Your task to perform on an android device: Do I have any events this weekend? Image 0: 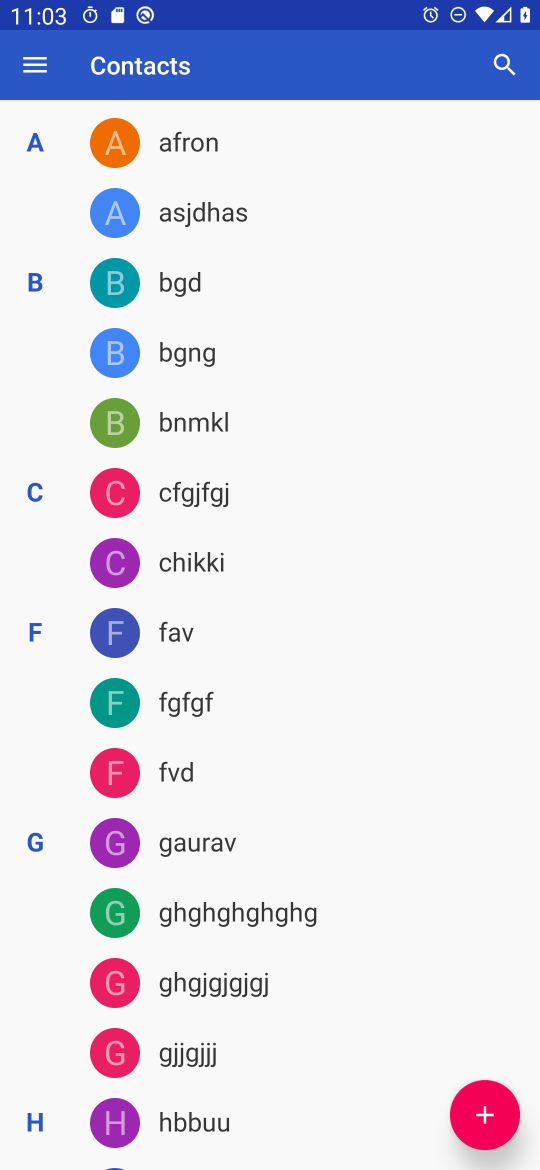
Step 0: press back button
Your task to perform on an android device: Do I have any events this weekend? Image 1: 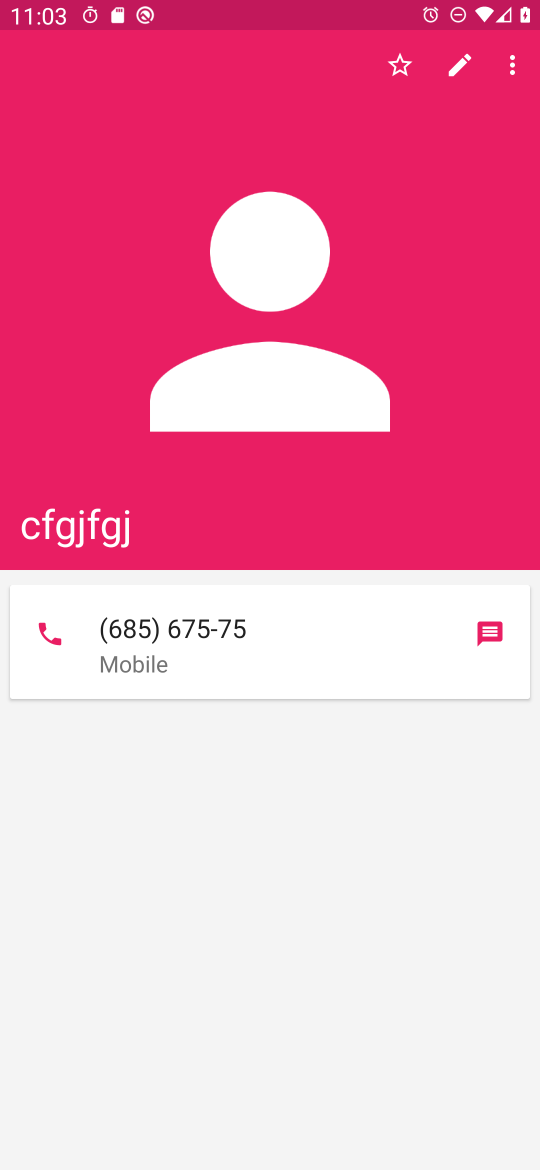
Step 1: press home button
Your task to perform on an android device: Do I have any events this weekend? Image 2: 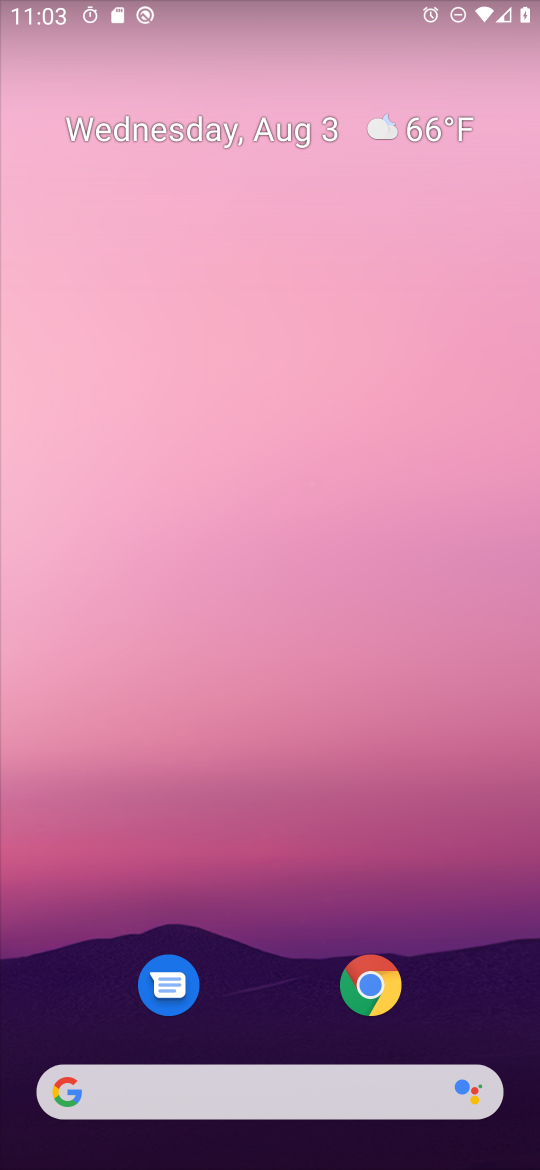
Step 2: drag from (289, 958) to (208, 234)
Your task to perform on an android device: Do I have any events this weekend? Image 3: 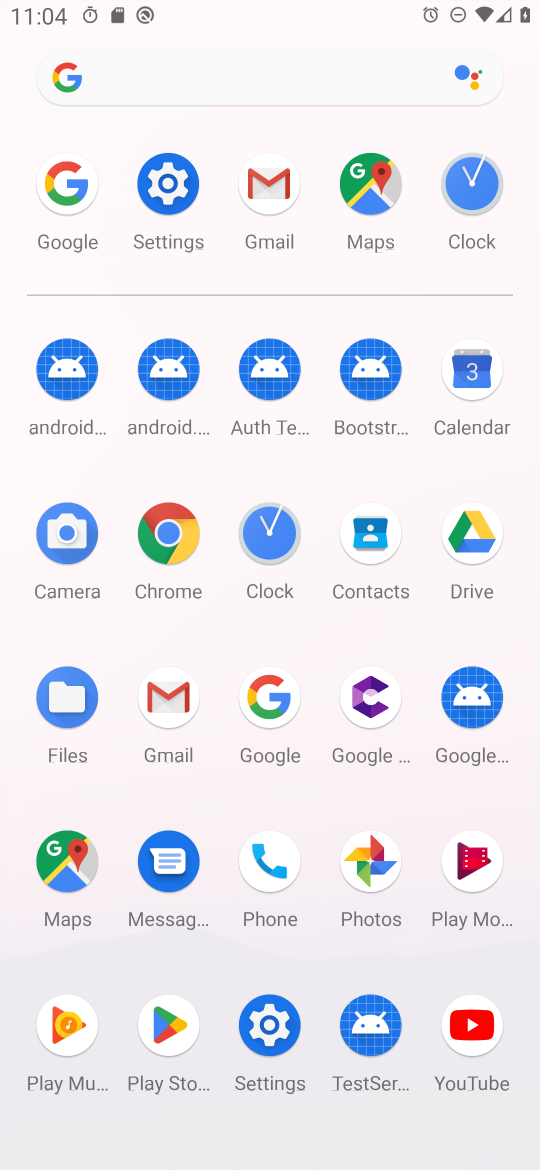
Step 3: click (468, 399)
Your task to perform on an android device: Do I have any events this weekend? Image 4: 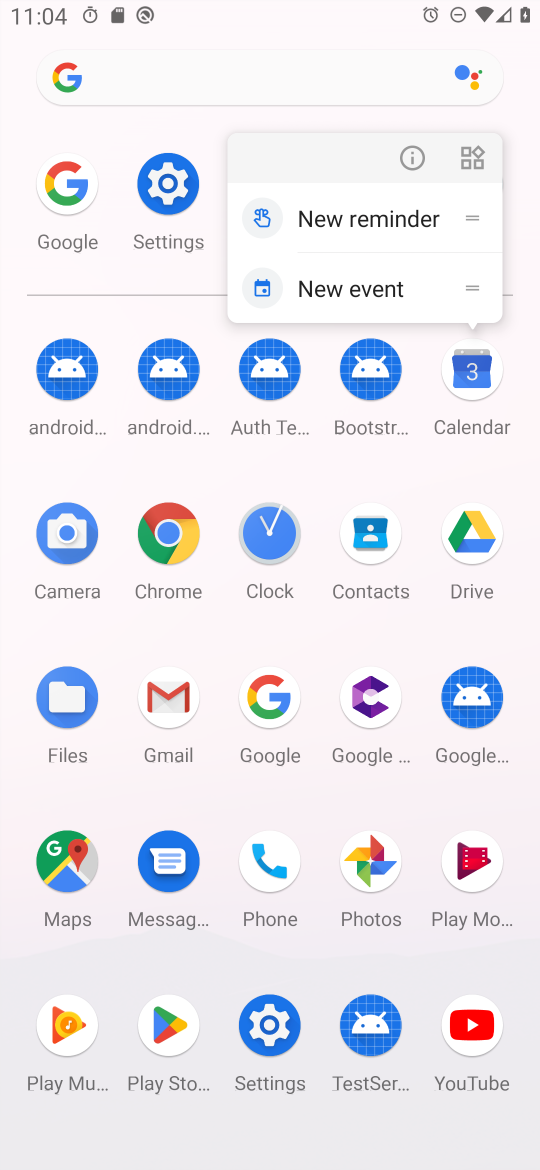
Step 4: click (469, 410)
Your task to perform on an android device: Do I have any events this weekend? Image 5: 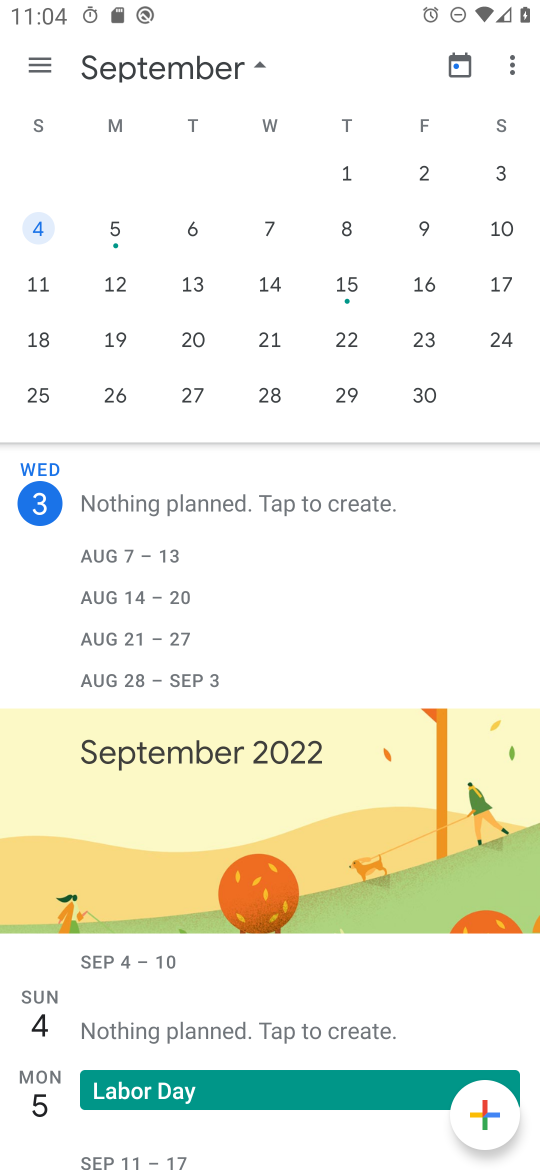
Step 5: click (514, 228)
Your task to perform on an android device: Do I have any events this weekend? Image 6: 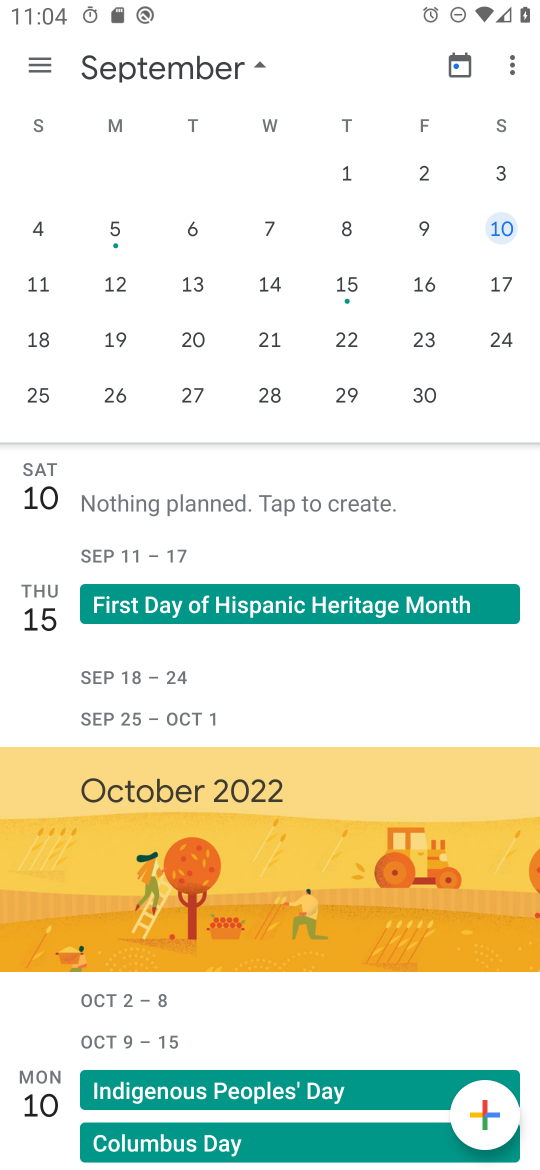
Step 6: click (514, 228)
Your task to perform on an android device: Do I have any events this weekend? Image 7: 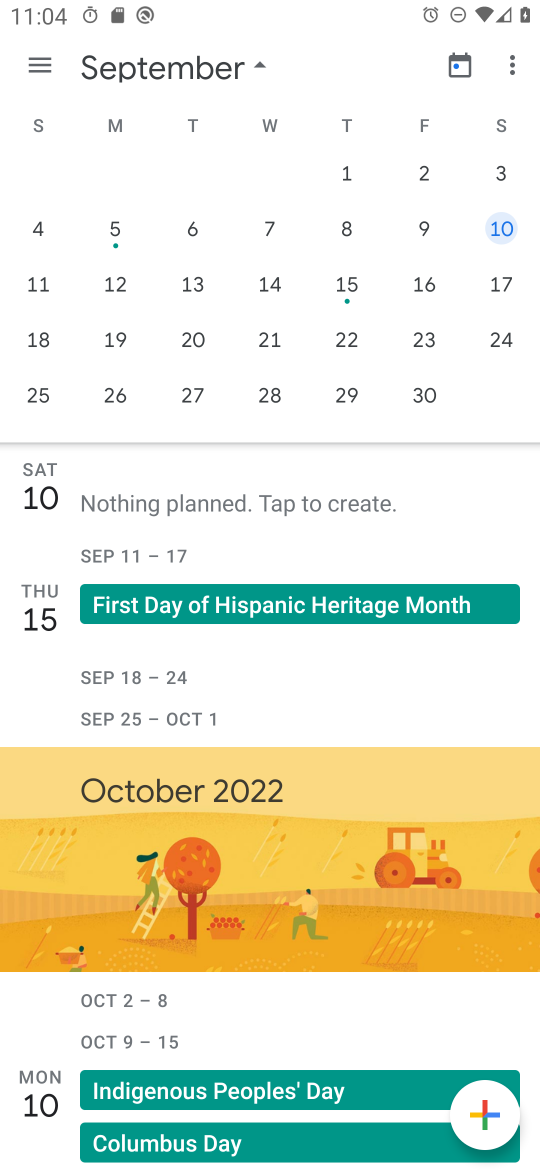
Step 7: task complete